Your task to perform on an android device: turn on javascript in the chrome app Image 0: 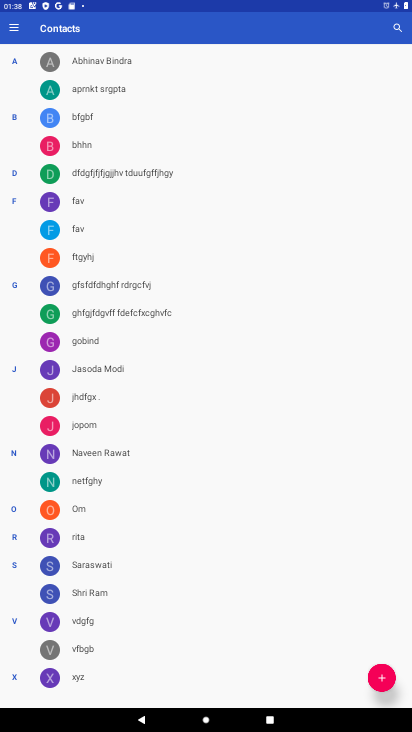
Step 0: press home button
Your task to perform on an android device: turn on javascript in the chrome app Image 1: 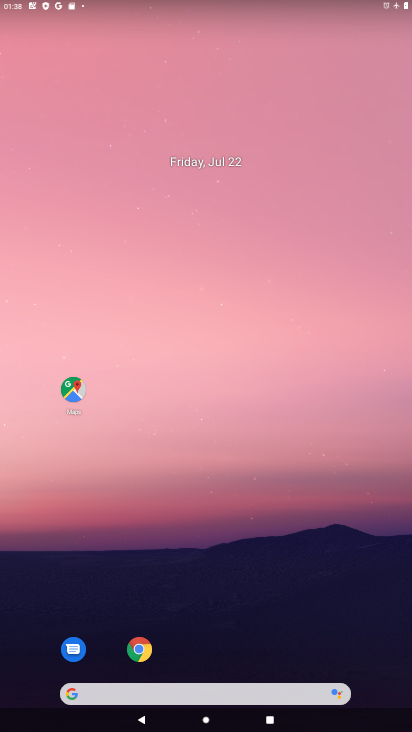
Step 1: drag from (327, 602) to (379, 97)
Your task to perform on an android device: turn on javascript in the chrome app Image 2: 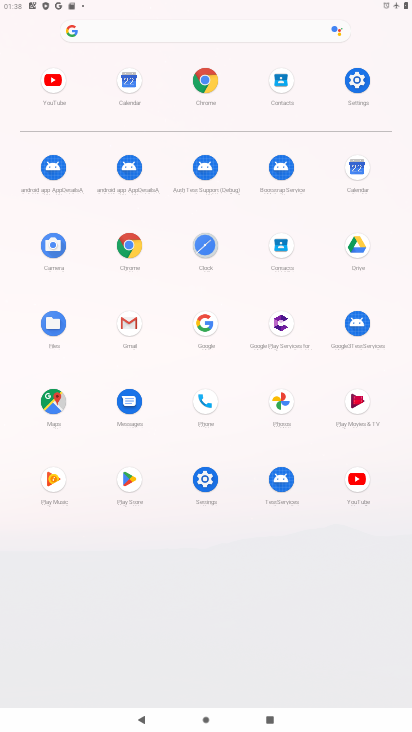
Step 2: click (135, 248)
Your task to perform on an android device: turn on javascript in the chrome app Image 3: 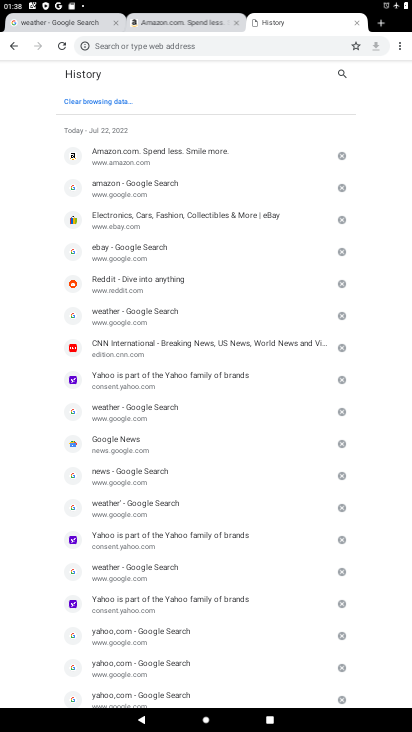
Step 3: drag from (405, 48) to (311, 237)
Your task to perform on an android device: turn on javascript in the chrome app Image 4: 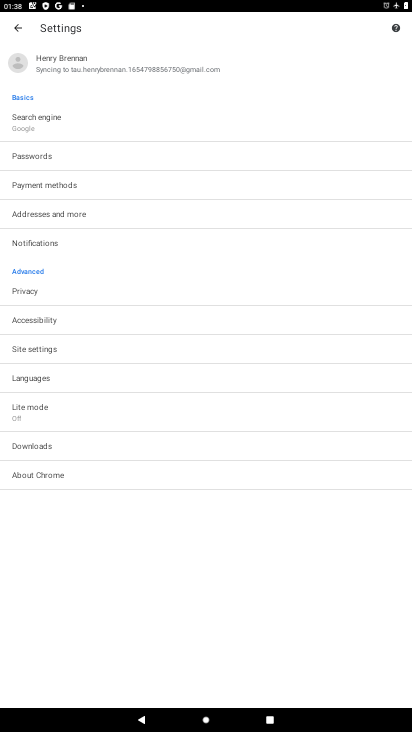
Step 4: click (39, 351)
Your task to perform on an android device: turn on javascript in the chrome app Image 5: 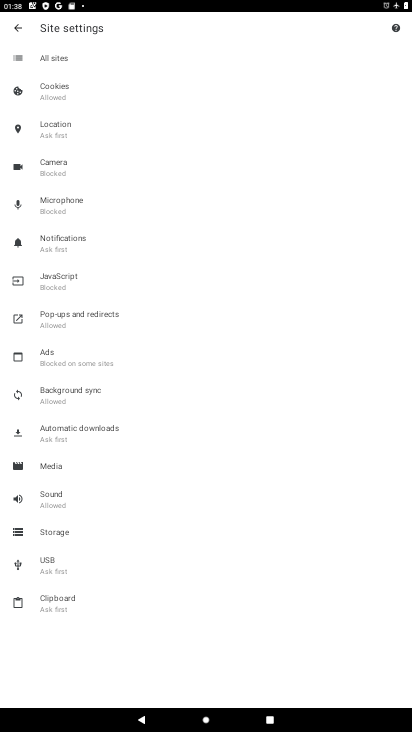
Step 5: click (71, 283)
Your task to perform on an android device: turn on javascript in the chrome app Image 6: 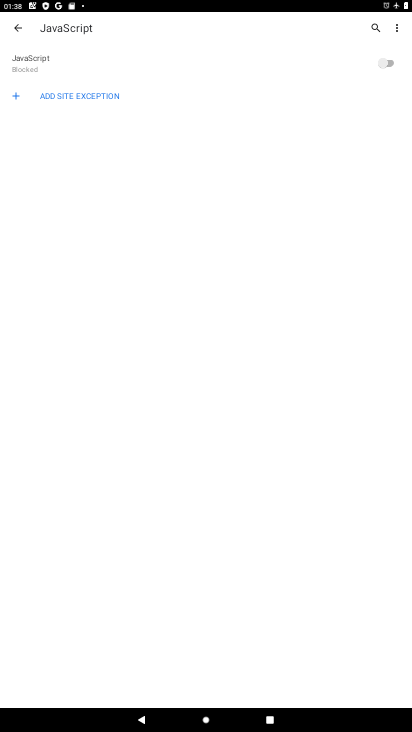
Step 6: click (383, 56)
Your task to perform on an android device: turn on javascript in the chrome app Image 7: 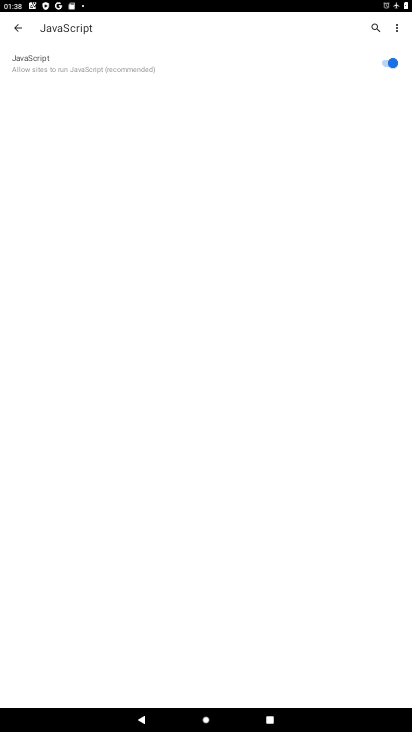
Step 7: task complete